Your task to perform on an android device: set the timer Image 0: 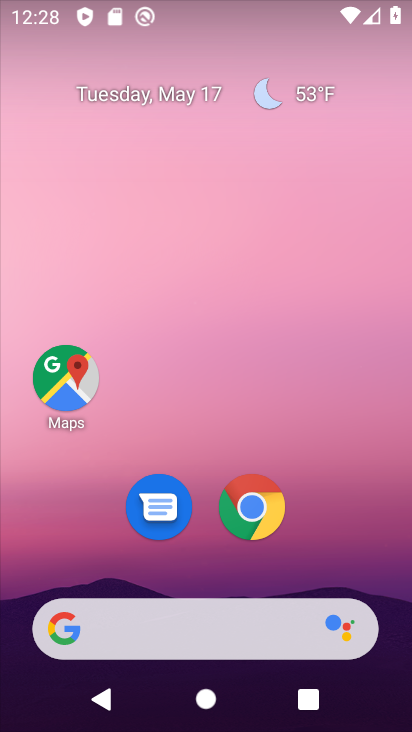
Step 0: drag from (338, 579) to (329, 52)
Your task to perform on an android device: set the timer Image 1: 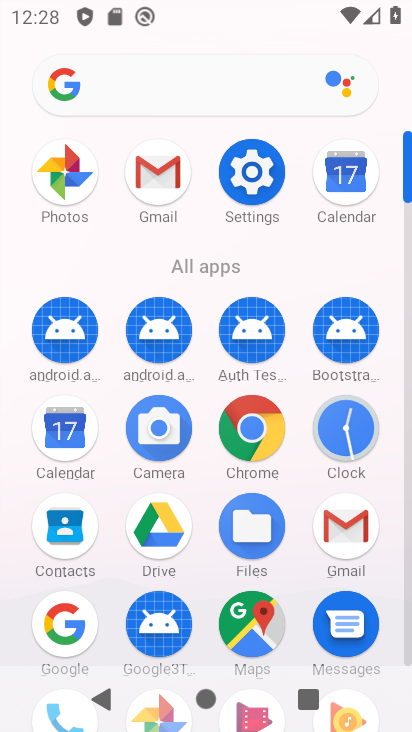
Step 1: click (355, 439)
Your task to perform on an android device: set the timer Image 2: 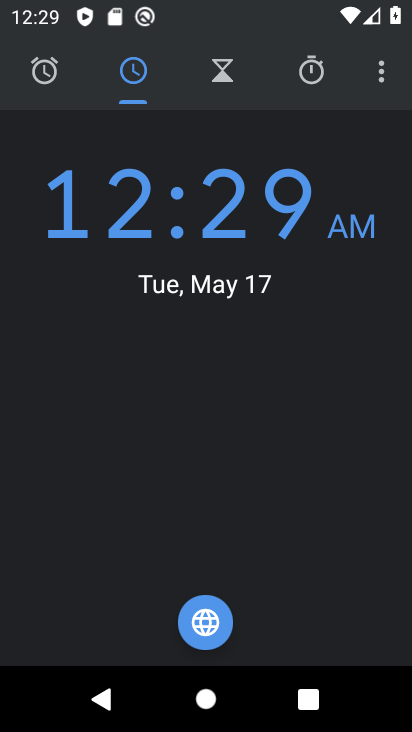
Step 2: click (231, 88)
Your task to perform on an android device: set the timer Image 3: 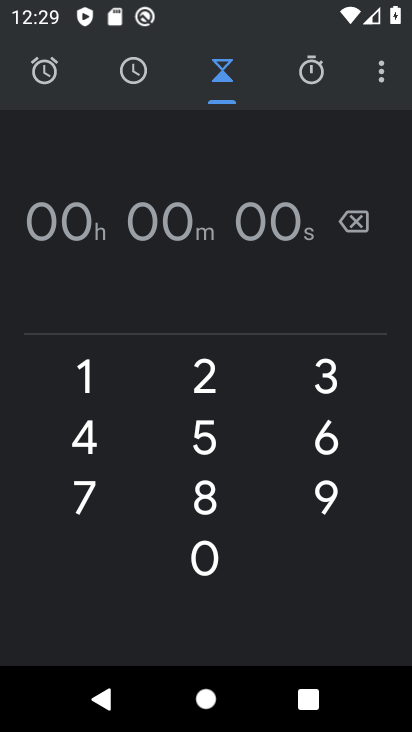
Step 3: click (194, 508)
Your task to perform on an android device: set the timer Image 4: 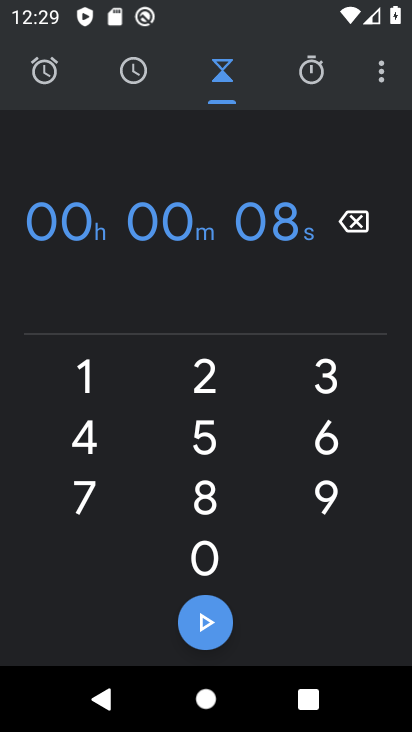
Step 4: click (194, 508)
Your task to perform on an android device: set the timer Image 5: 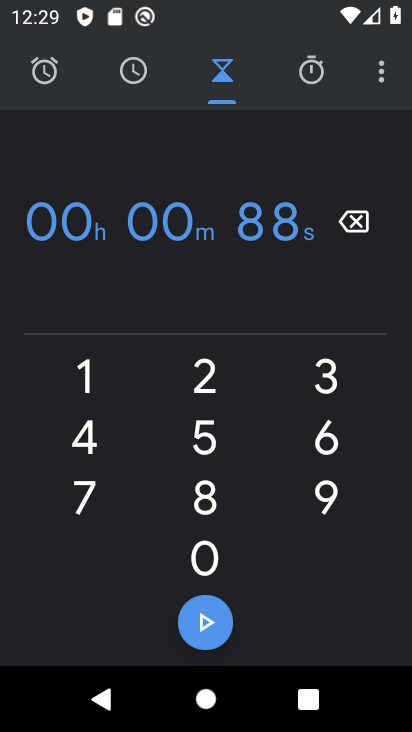
Step 5: click (194, 508)
Your task to perform on an android device: set the timer Image 6: 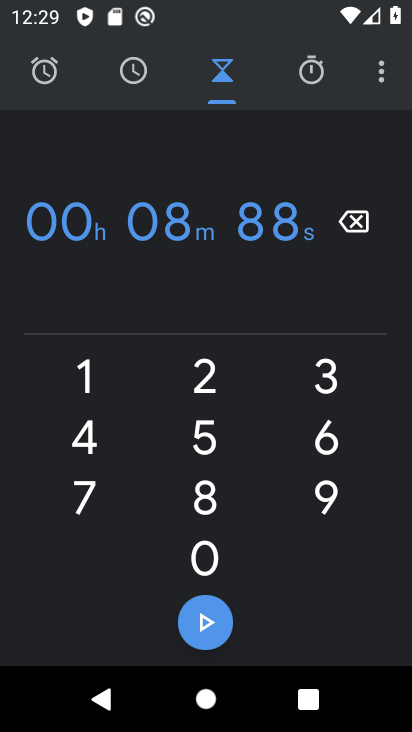
Step 6: click (187, 497)
Your task to perform on an android device: set the timer Image 7: 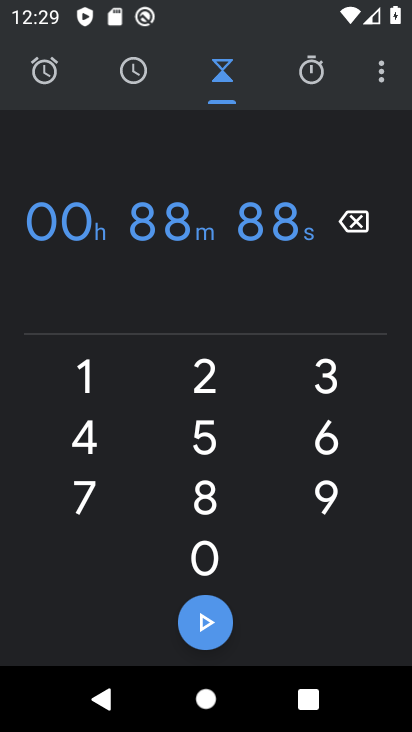
Step 7: click (176, 496)
Your task to perform on an android device: set the timer Image 8: 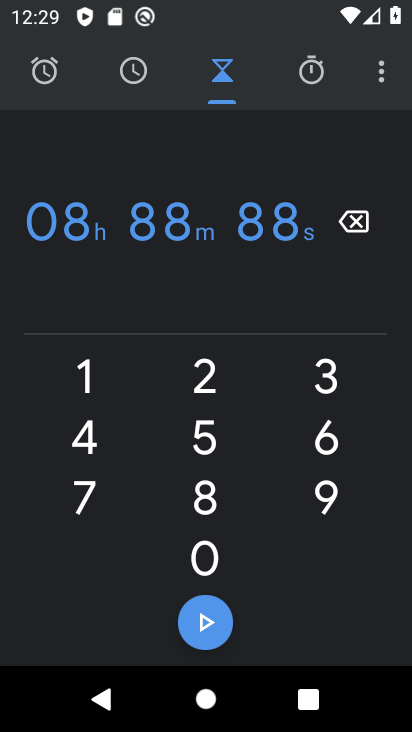
Step 8: click (176, 496)
Your task to perform on an android device: set the timer Image 9: 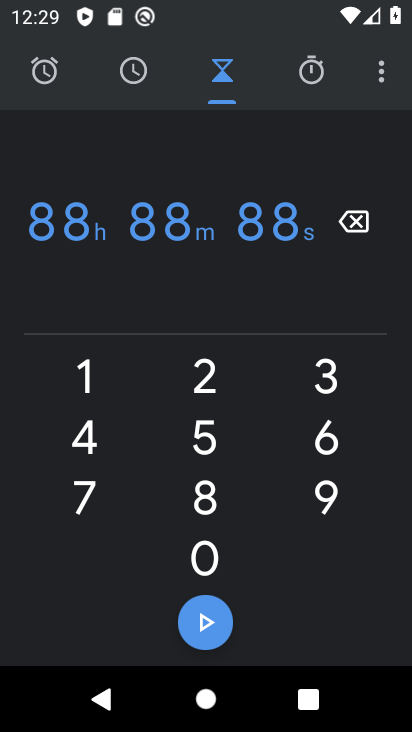
Step 9: click (176, 496)
Your task to perform on an android device: set the timer Image 10: 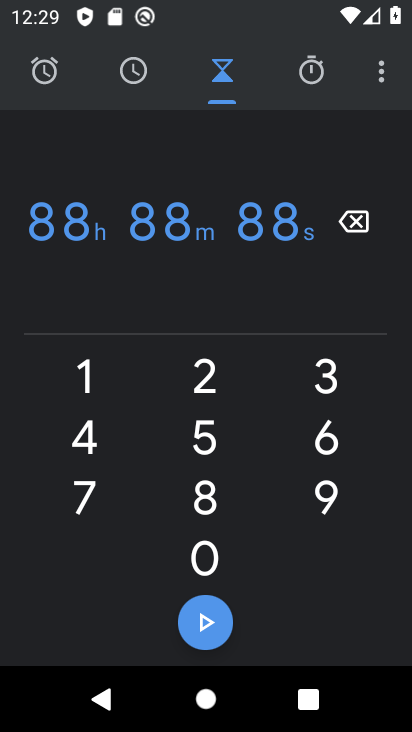
Step 10: click (203, 615)
Your task to perform on an android device: set the timer Image 11: 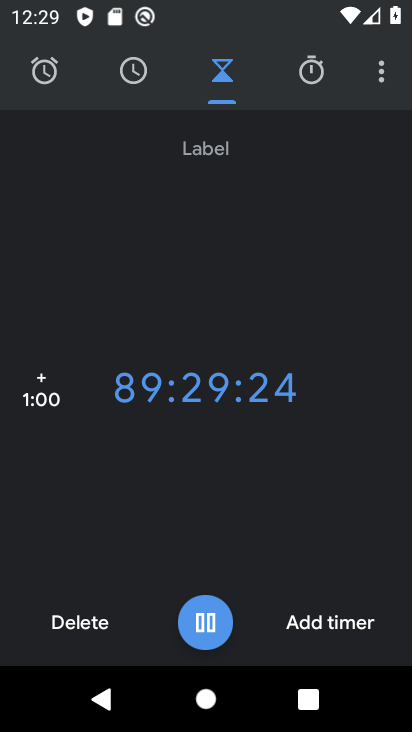
Step 11: task complete